Your task to perform on an android device: Go to Android settings Image 0: 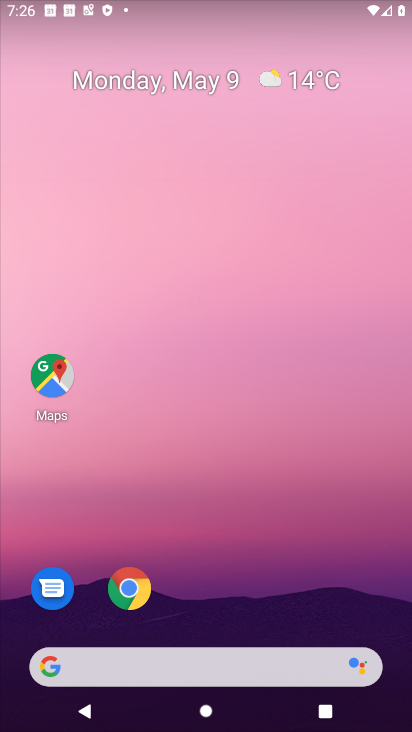
Step 0: drag from (354, 601) to (305, 17)
Your task to perform on an android device: Go to Android settings Image 1: 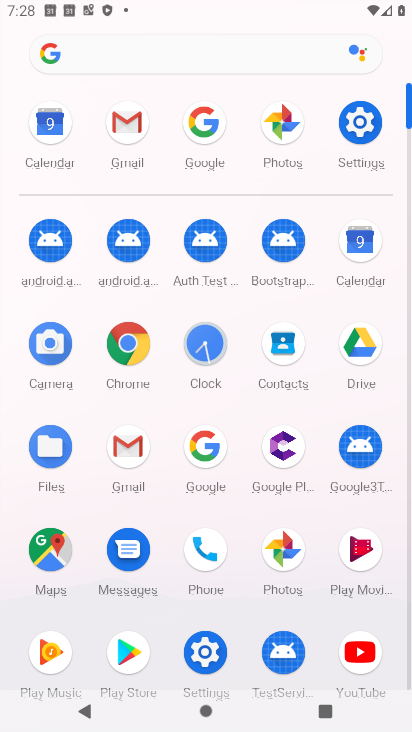
Step 1: click (206, 657)
Your task to perform on an android device: Go to Android settings Image 2: 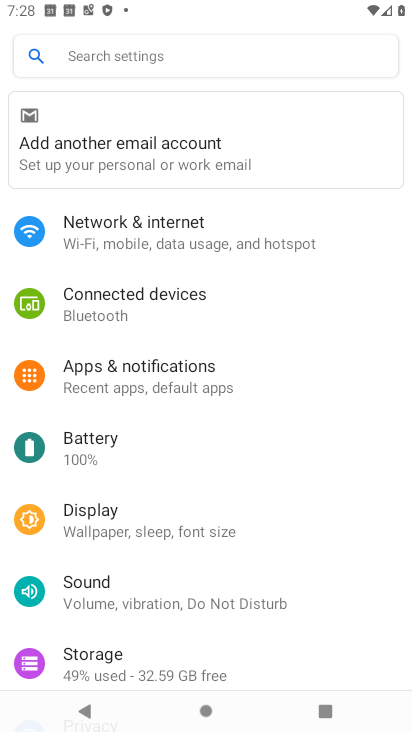
Step 2: drag from (185, 613) to (222, 19)
Your task to perform on an android device: Go to Android settings Image 3: 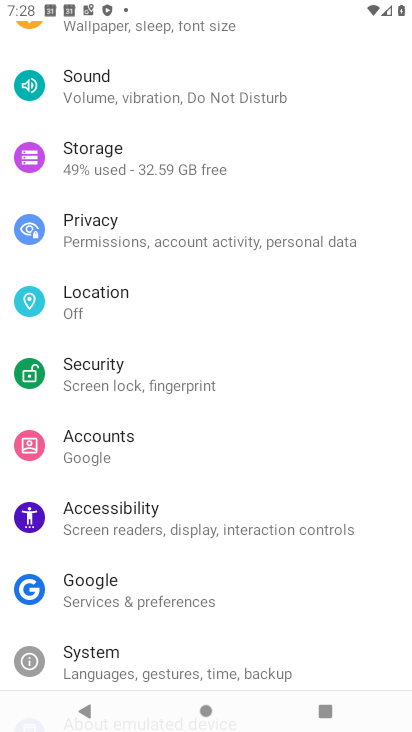
Step 3: drag from (198, 646) to (204, 85)
Your task to perform on an android device: Go to Android settings Image 4: 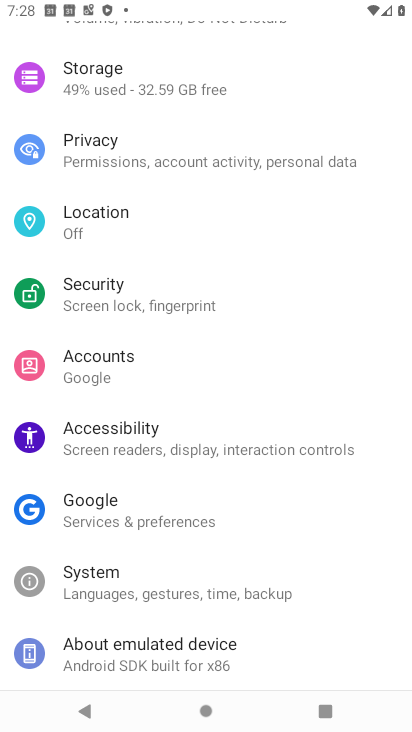
Step 4: click (174, 667)
Your task to perform on an android device: Go to Android settings Image 5: 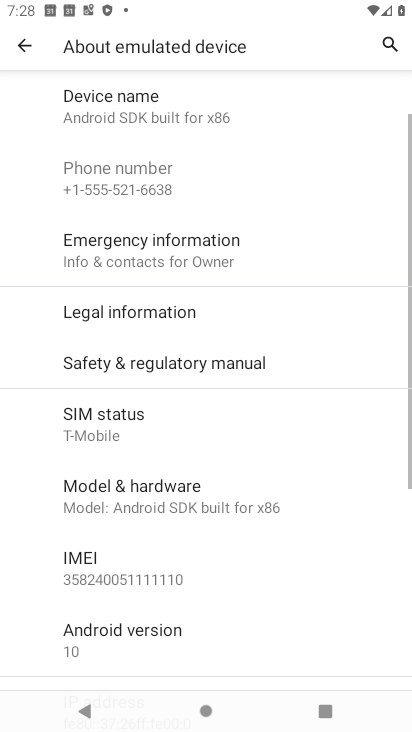
Step 5: click (141, 627)
Your task to perform on an android device: Go to Android settings Image 6: 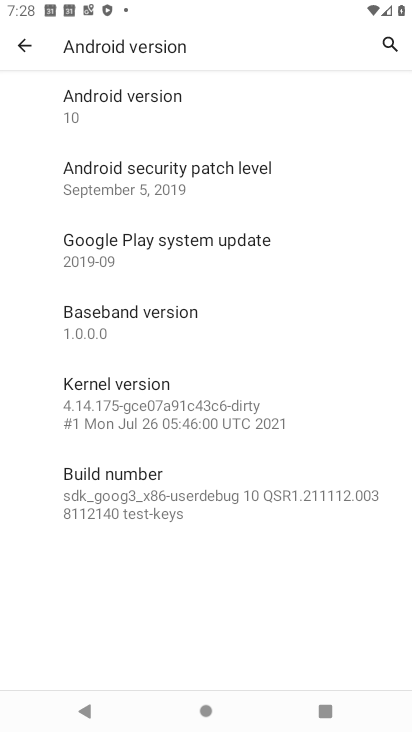
Step 6: task complete